Your task to perform on an android device: turn on translation in the chrome app Image 0: 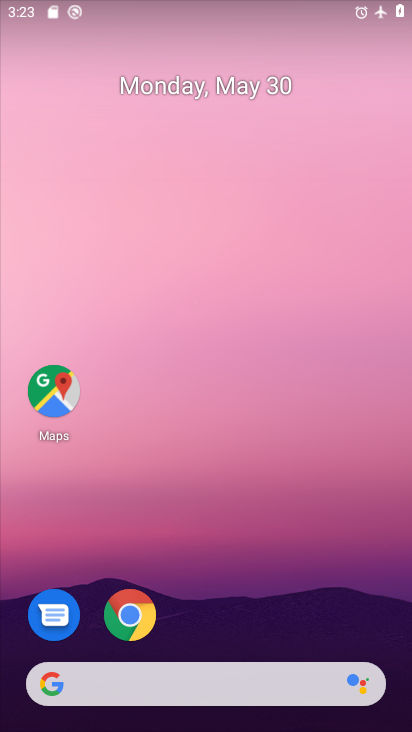
Step 0: click (126, 611)
Your task to perform on an android device: turn on translation in the chrome app Image 1: 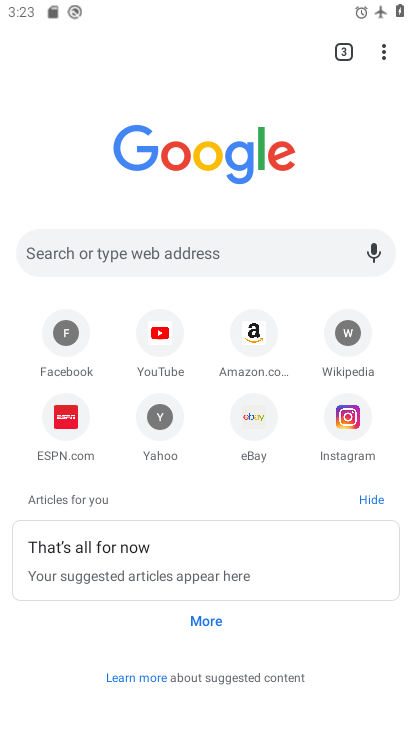
Step 1: click (383, 56)
Your task to perform on an android device: turn on translation in the chrome app Image 2: 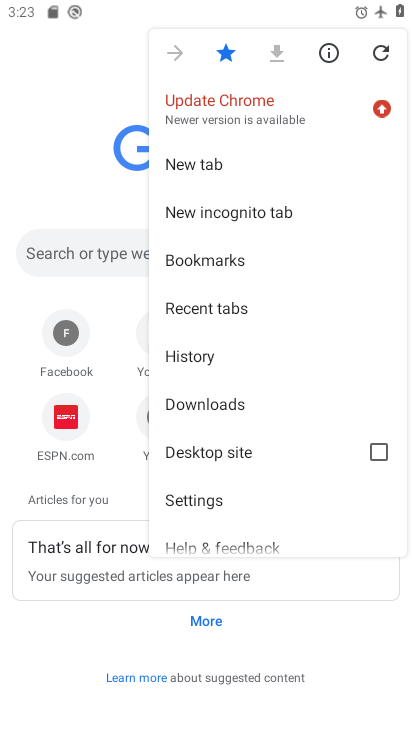
Step 2: click (247, 497)
Your task to perform on an android device: turn on translation in the chrome app Image 3: 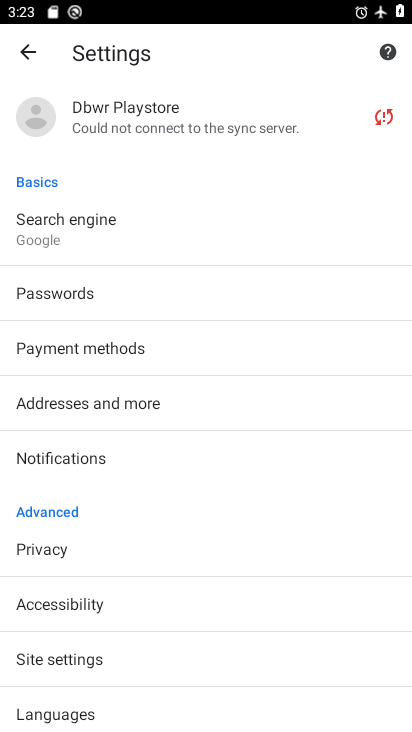
Step 3: click (237, 708)
Your task to perform on an android device: turn on translation in the chrome app Image 4: 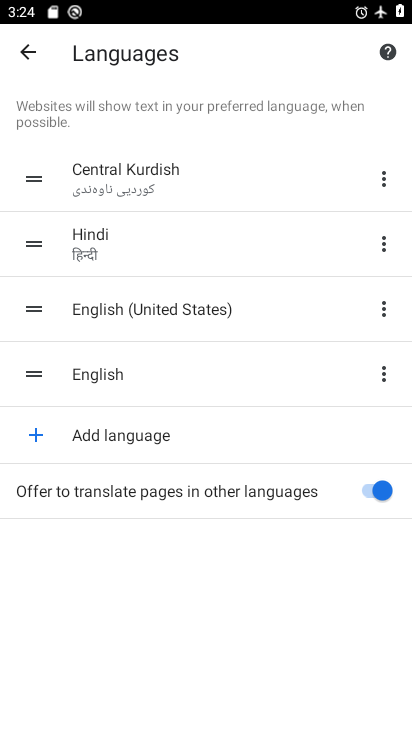
Step 4: task complete